Your task to perform on an android device: turn off sleep mode Image 0: 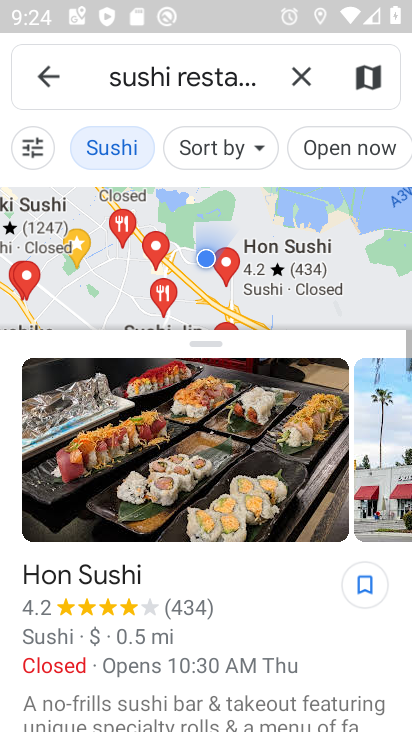
Step 0: press home button
Your task to perform on an android device: turn off sleep mode Image 1: 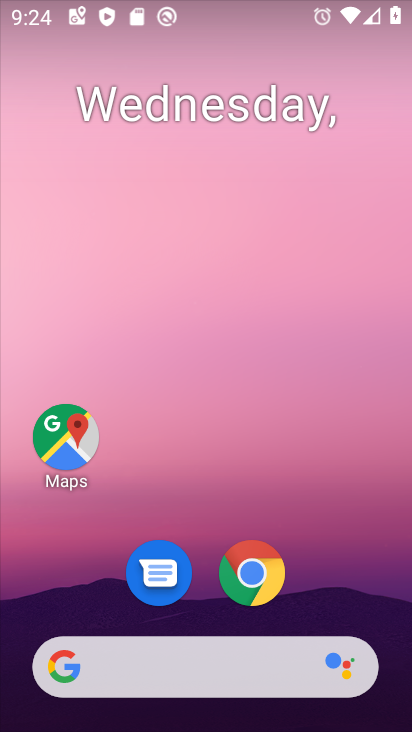
Step 1: drag from (237, 564) to (340, 14)
Your task to perform on an android device: turn off sleep mode Image 2: 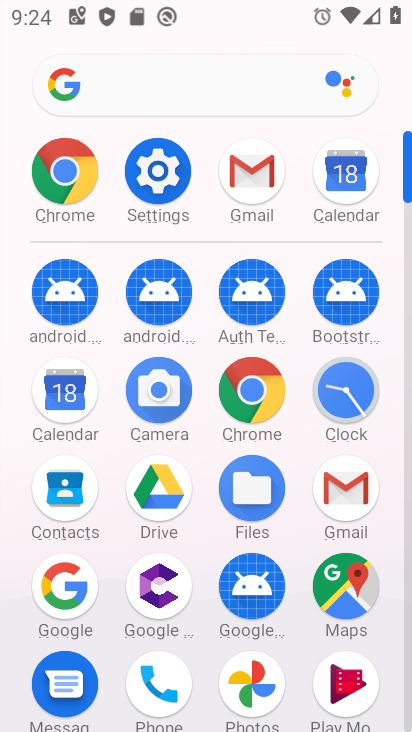
Step 2: click (173, 197)
Your task to perform on an android device: turn off sleep mode Image 3: 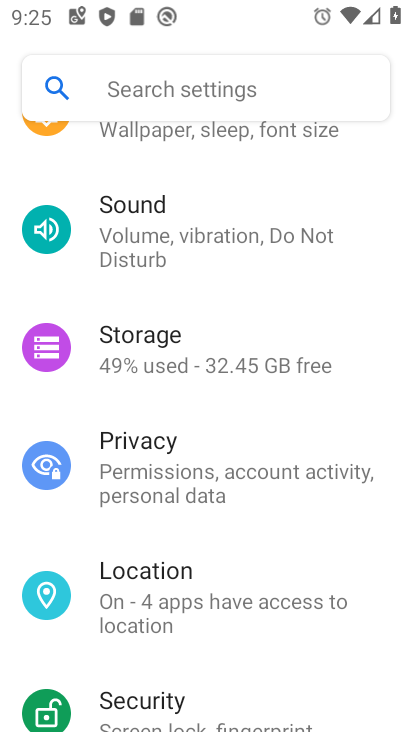
Step 3: drag from (211, 401) to (219, 718)
Your task to perform on an android device: turn off sleep mode Image 4: 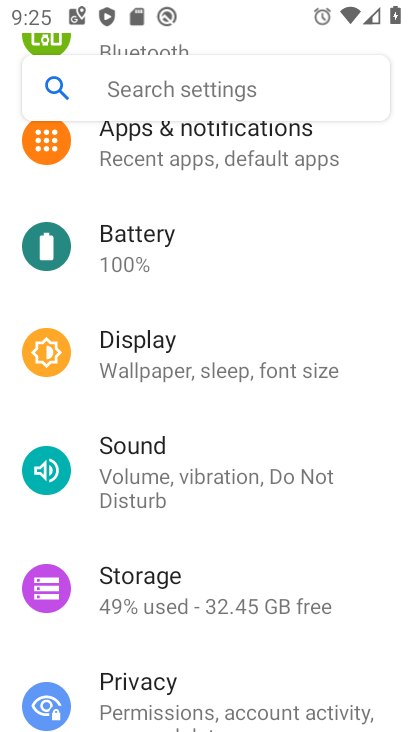
Step 4: click (215, 372)
Your task to perform on an android device: turn off sleep mode Image 5: 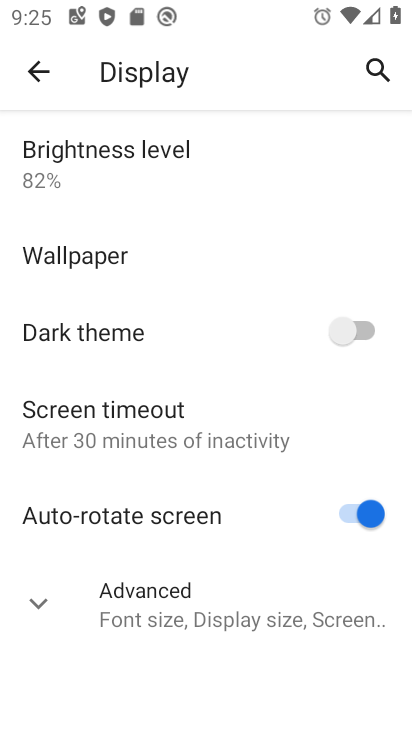
Step 5: click (159, 615)
Your task to perform on an android device: turn off sleep mode Image 6: 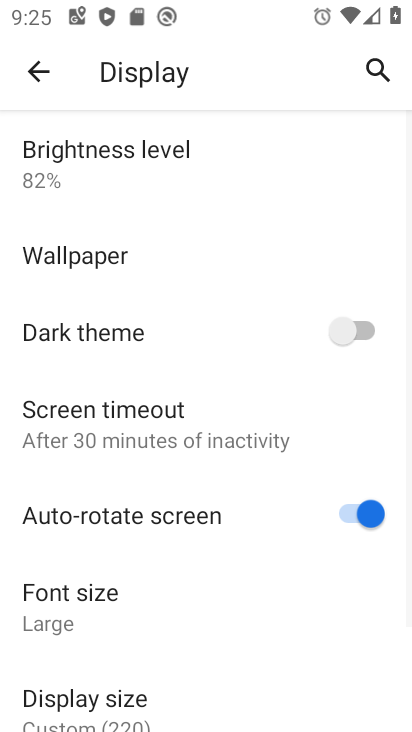
Step 6: task complete